Your task to perform on an android device: turn off translation in the chrome app Image 0: 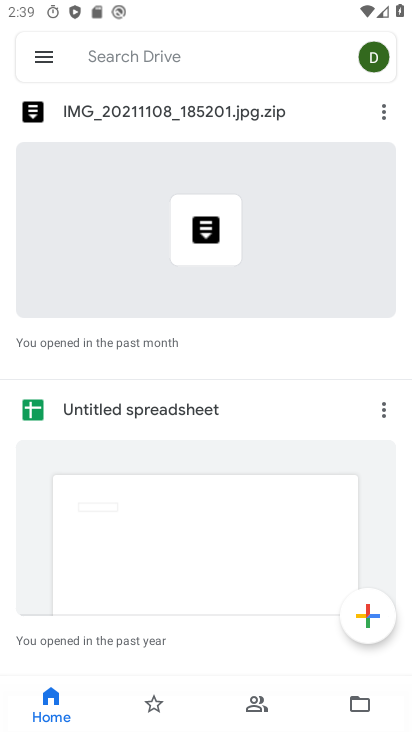
Step 0: press home button
Your task to perform on an android device: turn off translation in the chrome app Image 1: 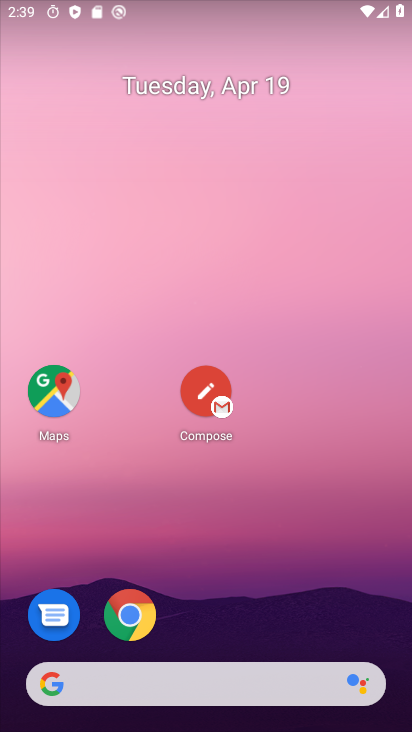
Step 1: drag from (301, 534) to (325, 48)
Your task to perform on an android device: turn off translation in the chrome app Image 2: 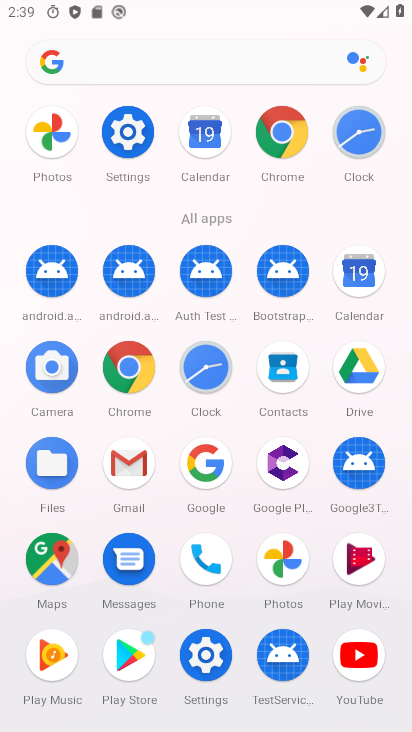
Step 2: click (138, 372)
Your task to perform on an android device: turn off translation in the chrome app Image 3: 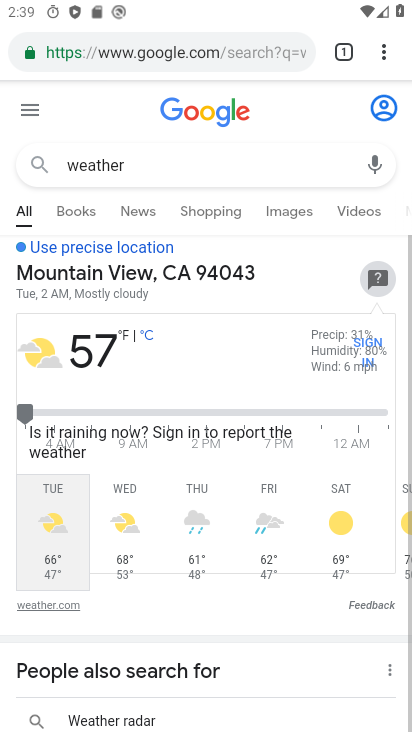
Step 3: drag from (261, 599) to (284, 195)
Your task to perform on an android device: turn off translation in the chrome app Image 4: 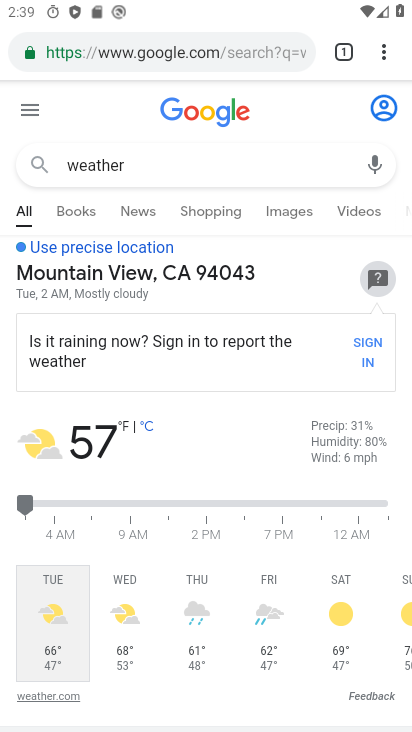
Step 4: drag from (274, 296) to (271, 500)
Your task to perform on an android device: turn off translation in the chrome app Image 5: 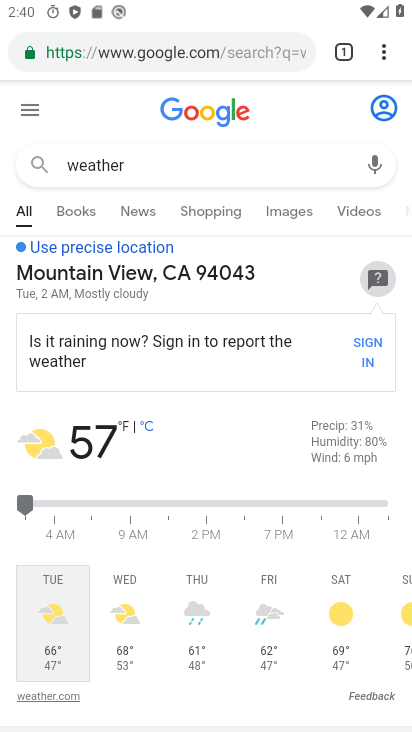
Step 5: click (375, 48)
Your task to perform on an android device: turn off translation in the chrome app Image 6: 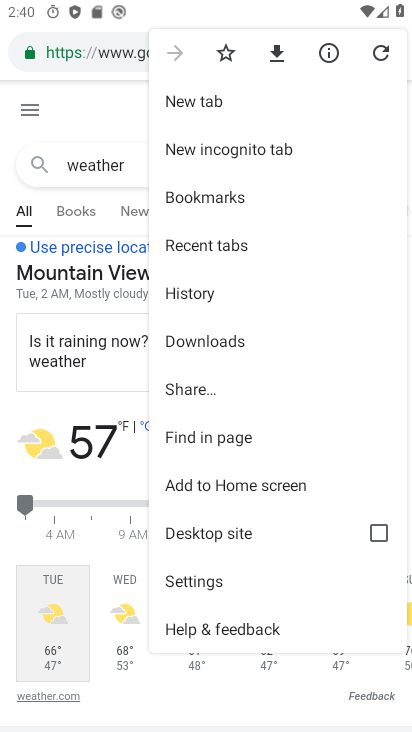
Step 6: click (236, 586)
Your task to perform on an android device: turn off translation in the chrome app Image 7: 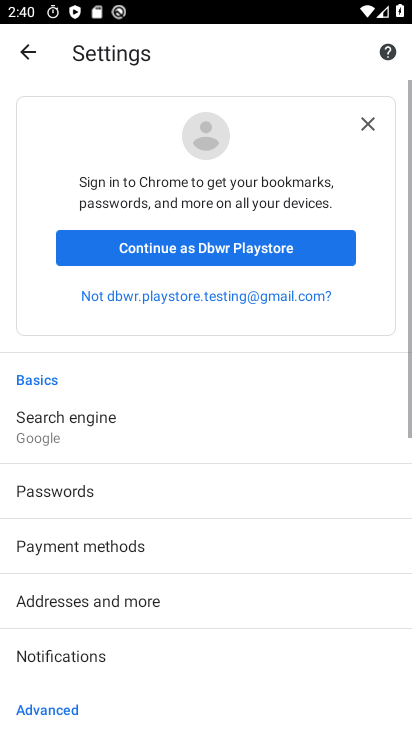
Step 7: drag from (236, 586) to (239, 185)
Your task to perform on an android device: turn off translation in the chrome app Image 8: 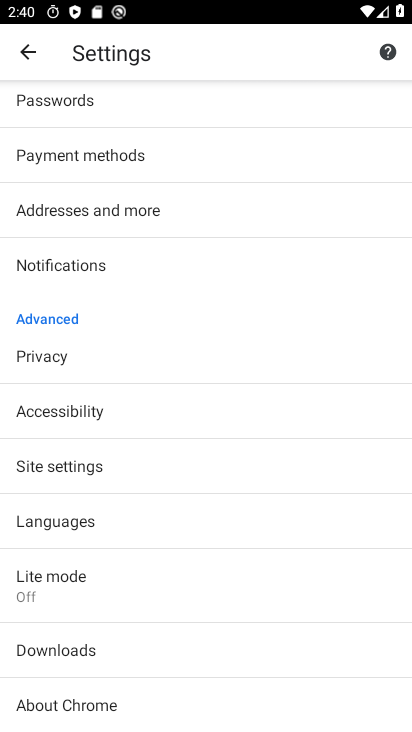
Step 8: click (120, 519)
Your task to perform on an android device: turn off translation in the chrome app Image 9: 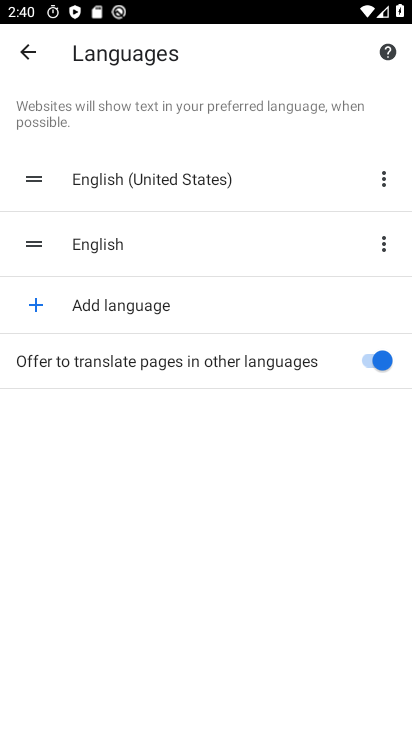
Step 9: click (363, 357)
Your task to perform on an android device: turn off translation in the chrome app Image 10: 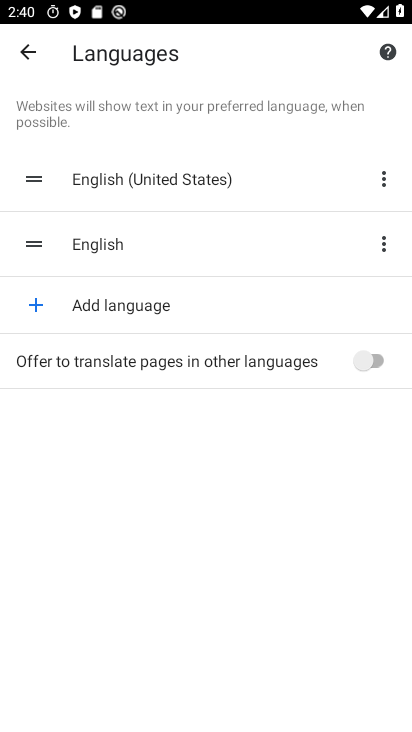
Step 10: task complete